Your task to perform on an android device: turn off notifications settings in the gmail app Image 0: 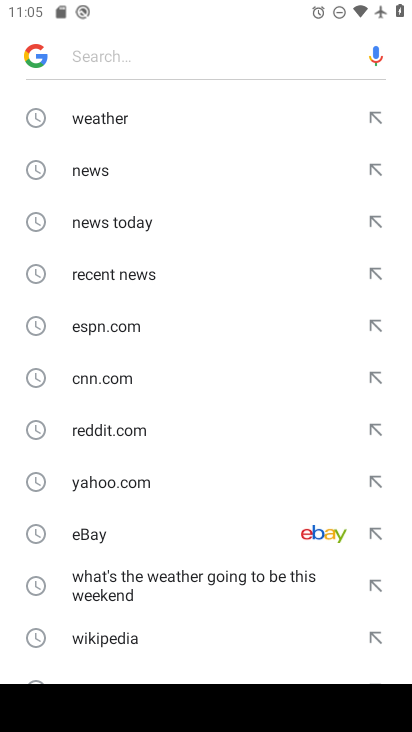
Step 0: press home button
Your task to perform on an android device: turn off notifications settings in the gmail app Image 1: 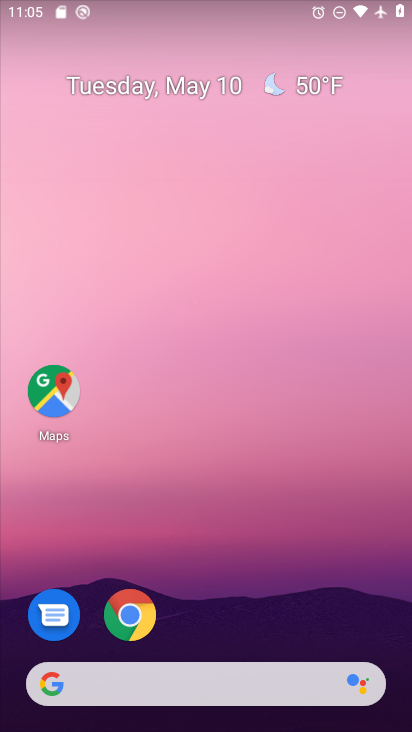
Step 1: drag from (365, 632) to (282, 151)
Your task to perform on an android device: turn off notifications settings in the gmail app Image 2: 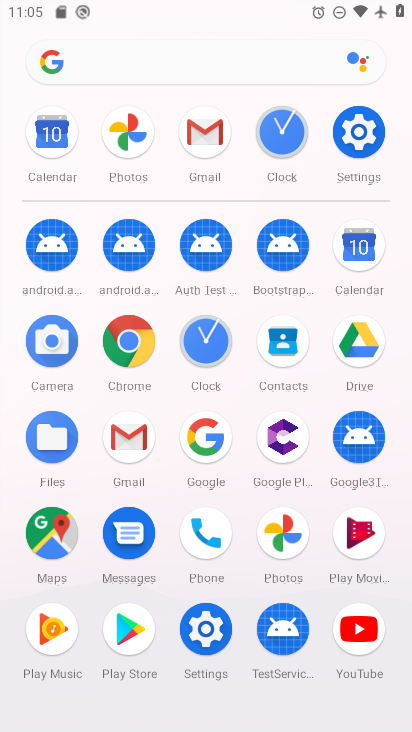
Step 2: click (126, 436)
Your task to perform on an android device: turn off notifications settings in the gmail app Image 3: 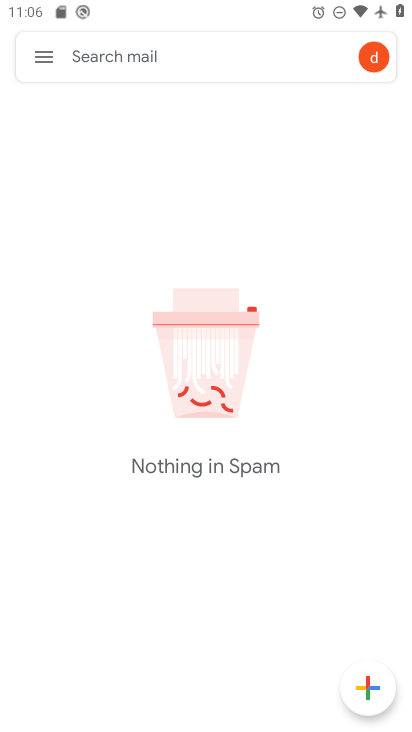
Step 3: click (38, 50)
Your task to perform on an android device: turn off notifications settings in the gmail app Image 4: 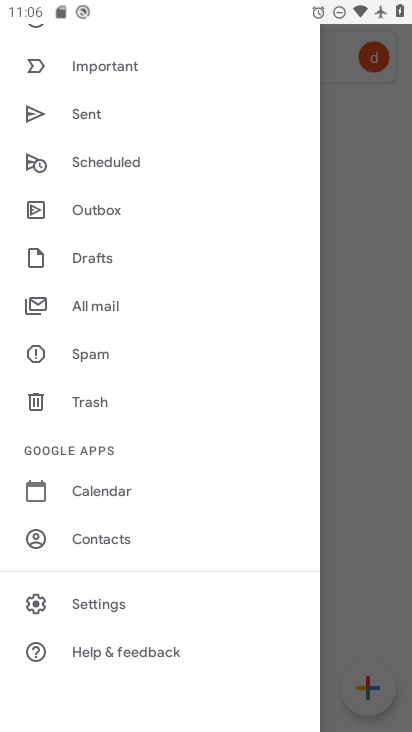
Step 4: click (99, 594)
Your task to perform on an android device: turn off notifications settings in the gmail app Image 5: 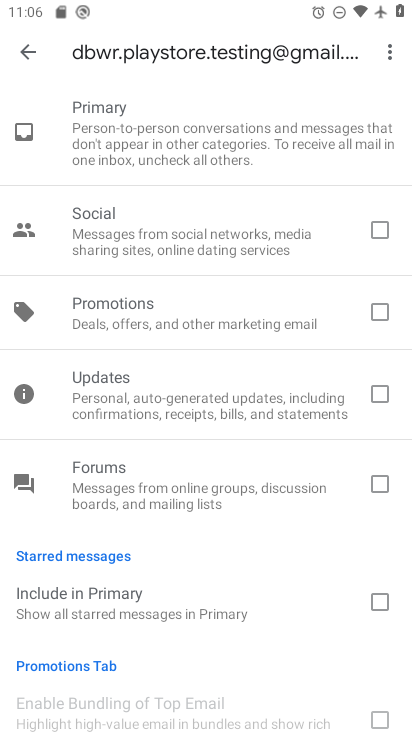
Step 5: press back button
Your task to perform on an android device: turn off notifications settings in the gmail app Image 6: 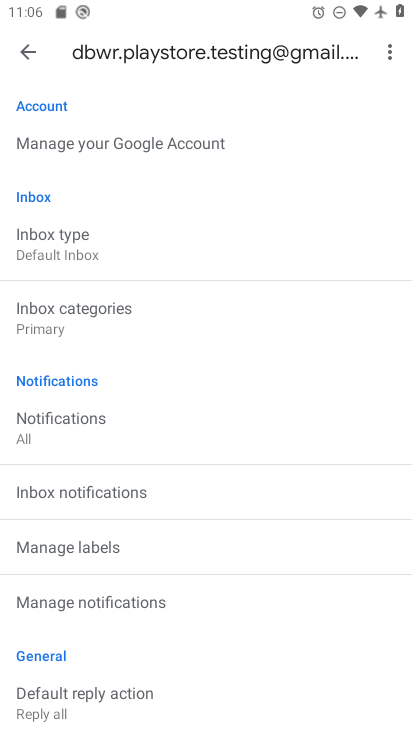
Step 6: click (79, 597)
Your task to perform on an android device: turn off notifications settings in the gmail app Image 7: 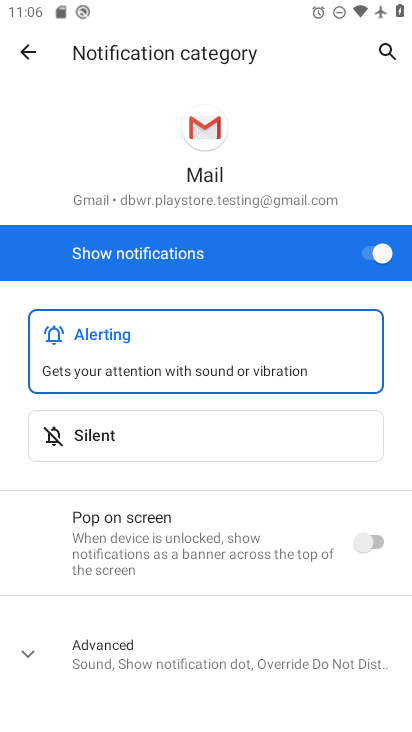
Step 7: click (362, 249)
Your task to perform on an android device: turn off notifications settings in the gmail app Image 8: 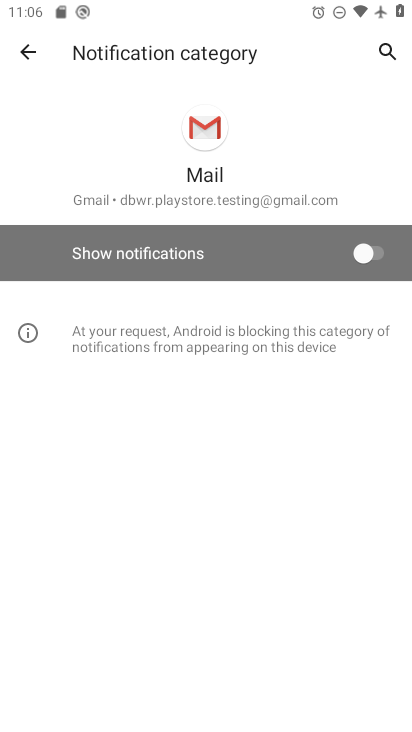
Step 8: task complete